Your task to perform on an android device: toggle sleep mode Image 0: 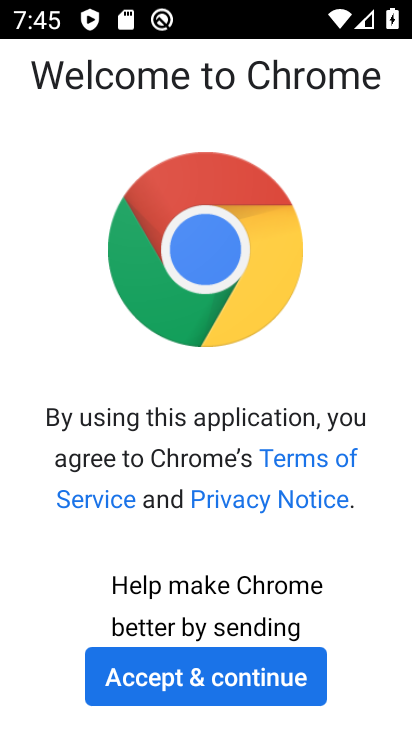
Step 0: click (184, 691)
Your task to perform on an android device: toggle sleep mode Image 1: 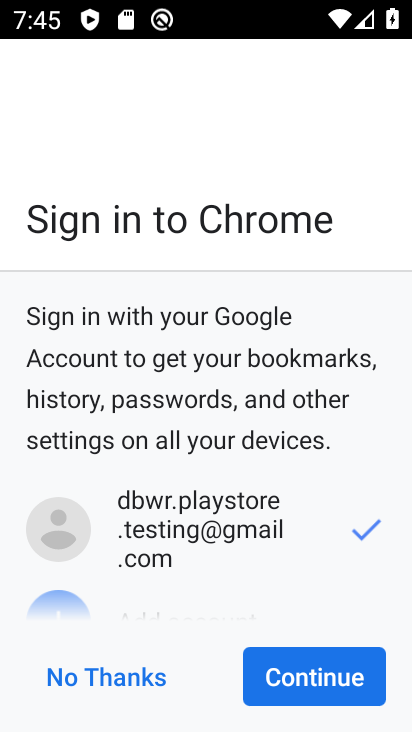
Step 1: click (287, 685)
Your task to perform on an android device: toggle sleep mode Image 2: 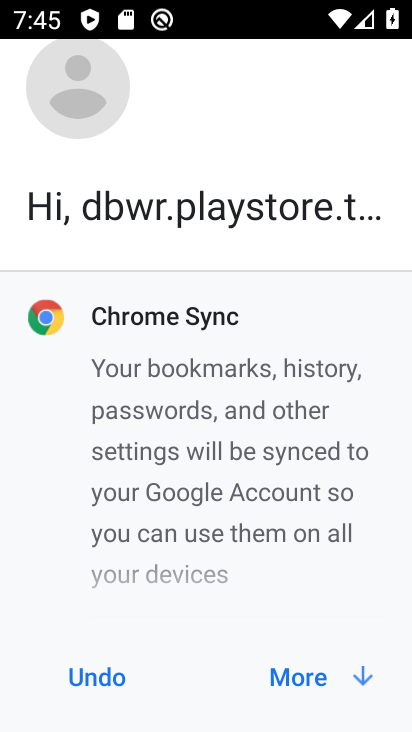
Step 2: click (287, 681)
Your task to perform on an android device: toggle sleep mode Image 3: 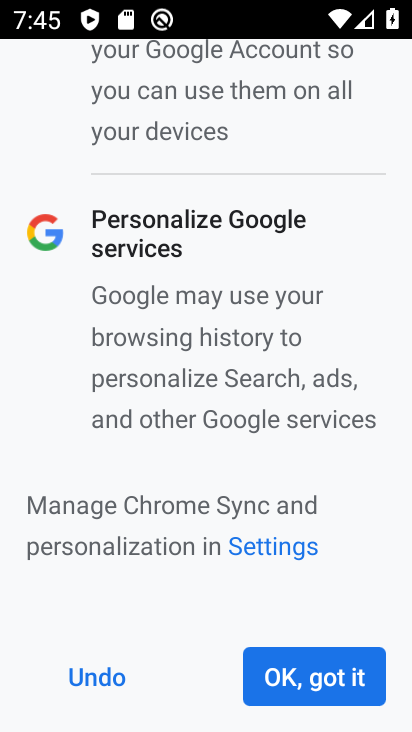
Step 3: click (287, 681)
Your task to perform on an android device: toggle sleep mode Image 4: 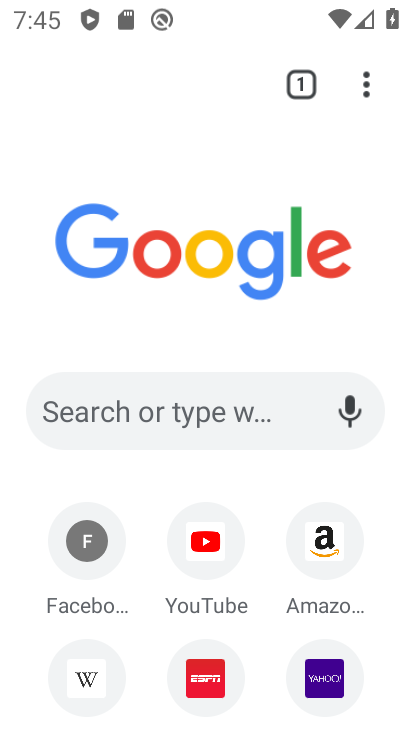
Step 4: press home button
Your task to perform on an android device: toggle sleep mode Image 5: 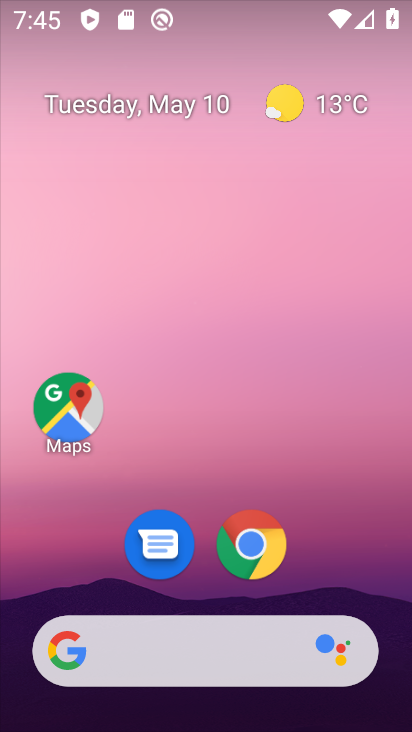
Step 5: drag from (162, 609) to (180, 115)
Your task to perform on an android device: toggle sleep mode Image 6: 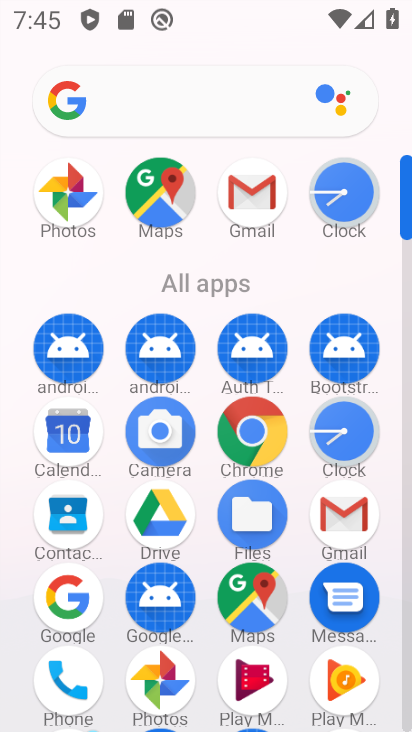
Step 6: drag from (128, 477) to (114, 210)
Your task to perform on an android device: toggle sleep mode Image 7: 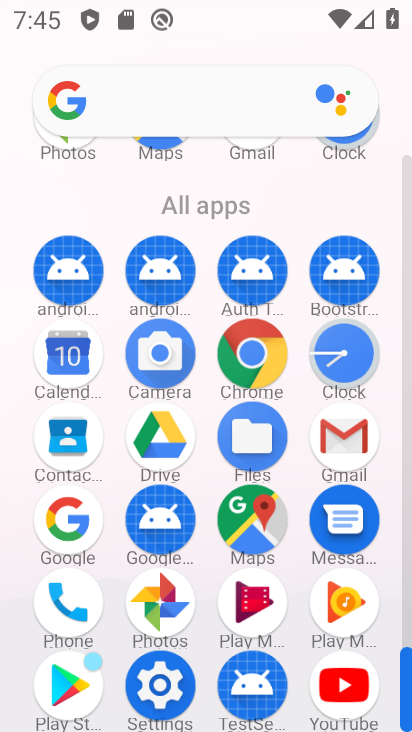
Step 7: click (158, 681)
Your task to perform on an android device: toggle sleep mode Image 8: 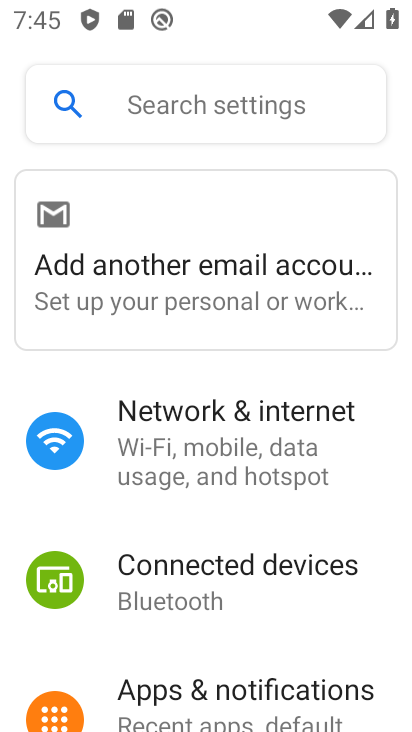
Step 8: drag from (213, 714) to (230, 291)
Your task to perform on an android device: toggle sleep mode Image 9: 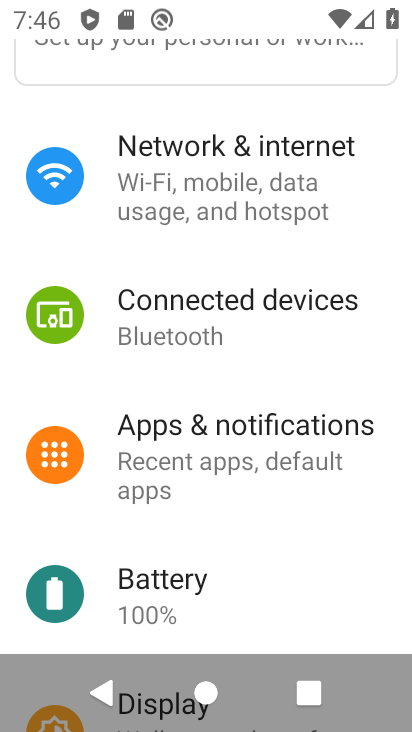
Step 9: drag from (235, 568) to (250, 166)
Your task to perform on an android device: toggle sleep mode Image 10: 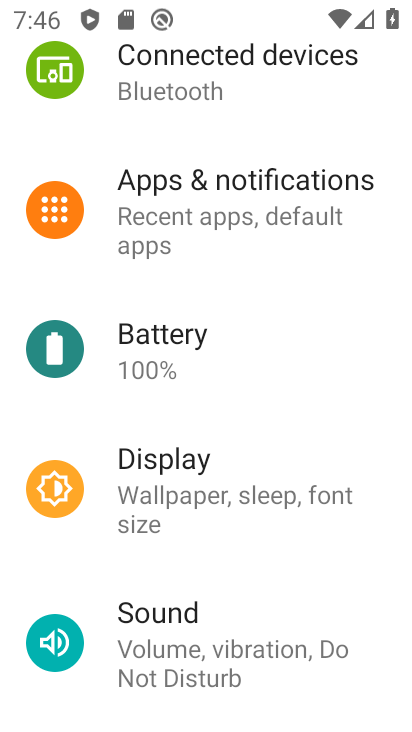
Step 10: click (267, 500)
Your task to perform on an android device: toggle sleep mode Image 11: 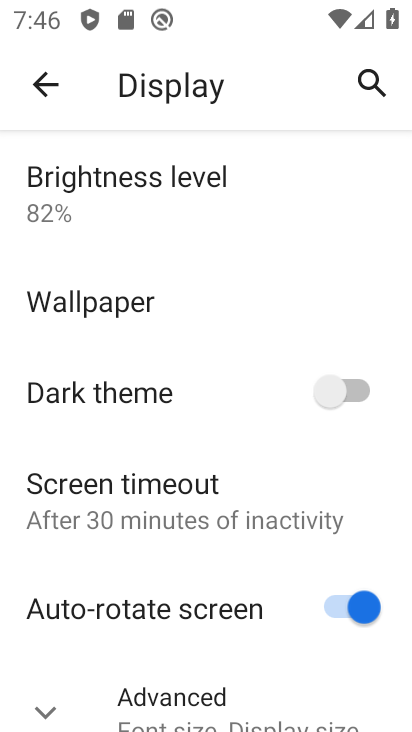
Step 11: click (93, 500)
Your task to perform on an android device: toggle sleep mode Image 12: 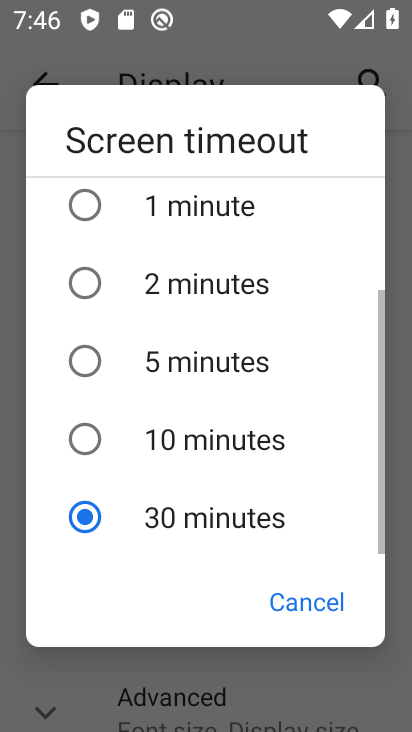
Step 12: click (80, 211)
Your task to perform on an android device: toggle sleep mode Image 13: 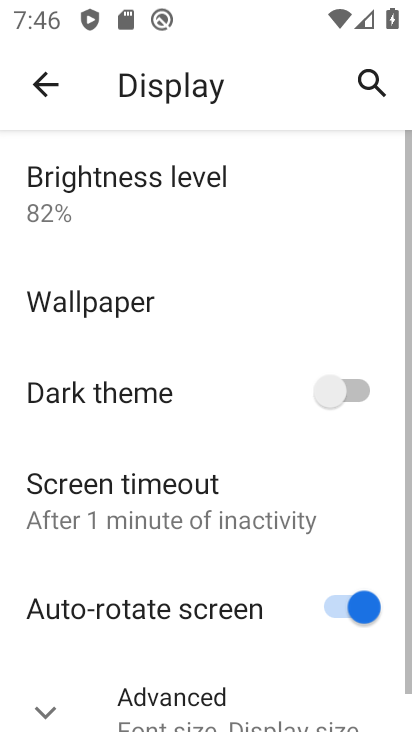
Step 13: task complete